Your task to perform on an android device: Open Yahoo.com Image 0: 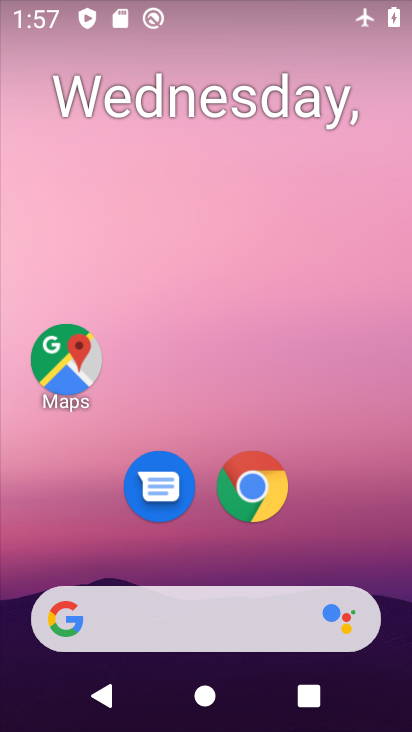
Step 0: click (168, 613)
Your task to perform on an android device: Open Yahoo.com Image 1: 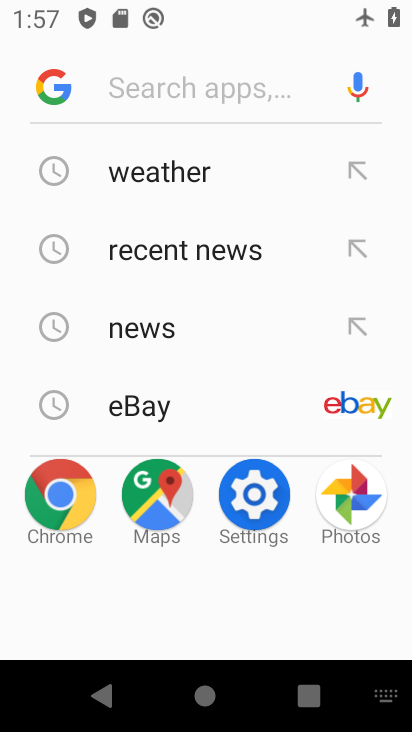
Step 1: type "yahoo.com"
Your task to perform on an android device: Open Yahoo.com Image 2: 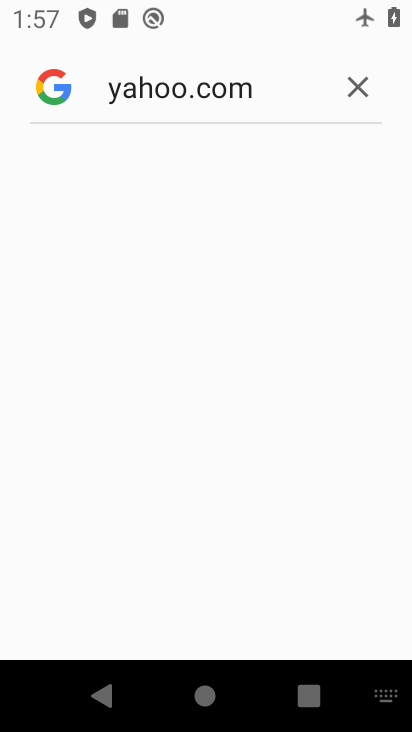
Step 2: task complete